Your task to perform on an android device: Go to calendar. Show me events next week Image 0: 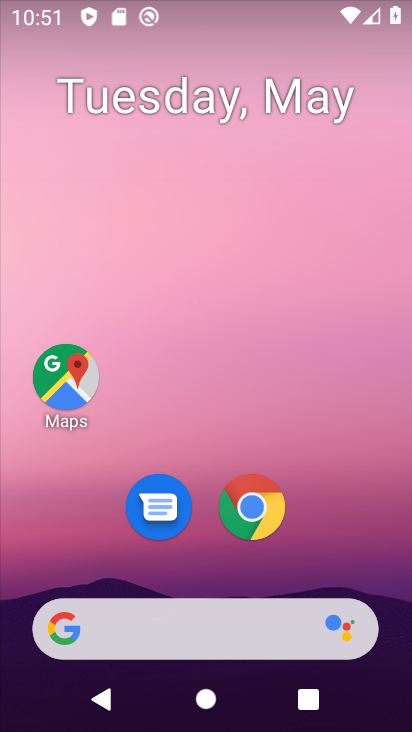
Step 0: drag from (263, 683) to (115, 195)
Your task to perform on an android device: Go to calendar. Show me events next week Image 1: 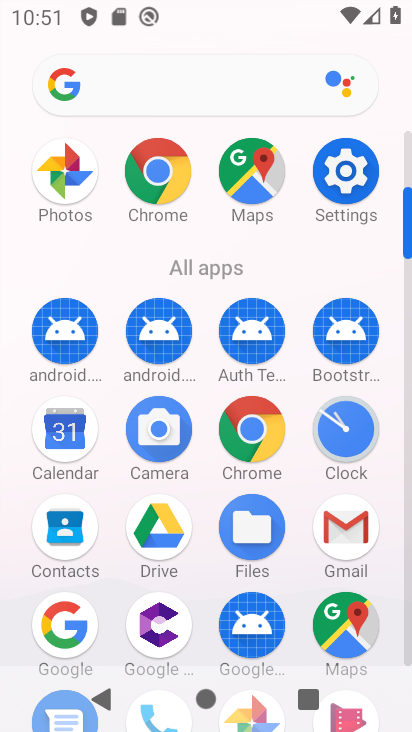
Step 1: click (63, 425)
Your task to perform on an android device: Go to calendar. Show me events next week Image 2: 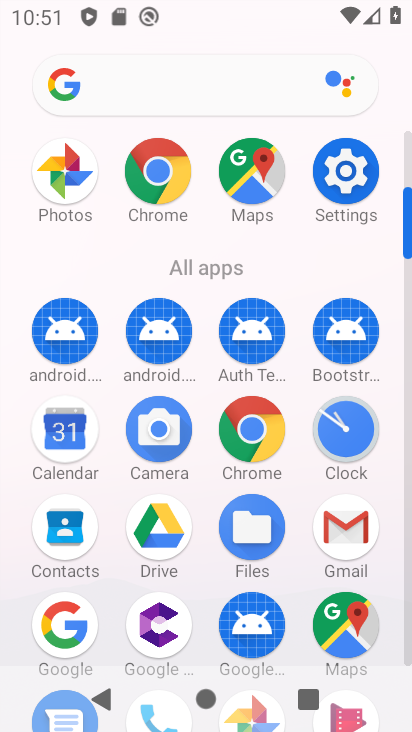
Step 2: click (63, 425)
Your task to perform on an android device: Go to calendar. Show me events next week Image 3: 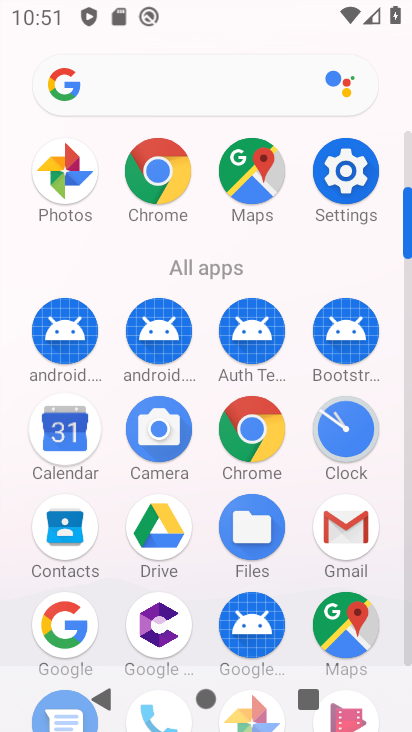
Step 3: click (63, 425)
Your task to perform on an android device: Go to calendar. Show me events next week Image 4: 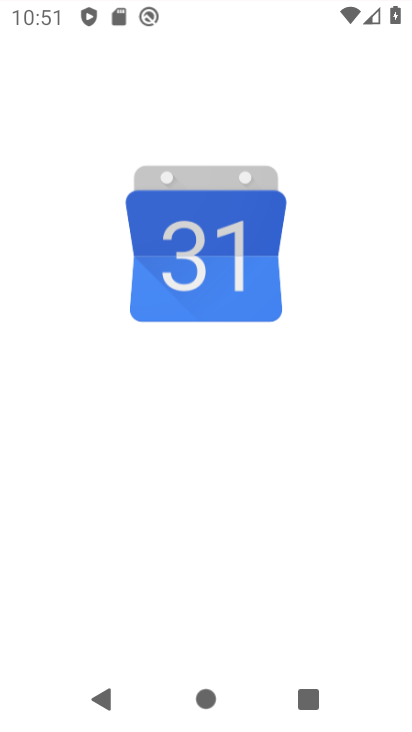
Step 4: click (63, 425)
Your task to perform on an android device: Go to calendar. Show me events next week Image 5: 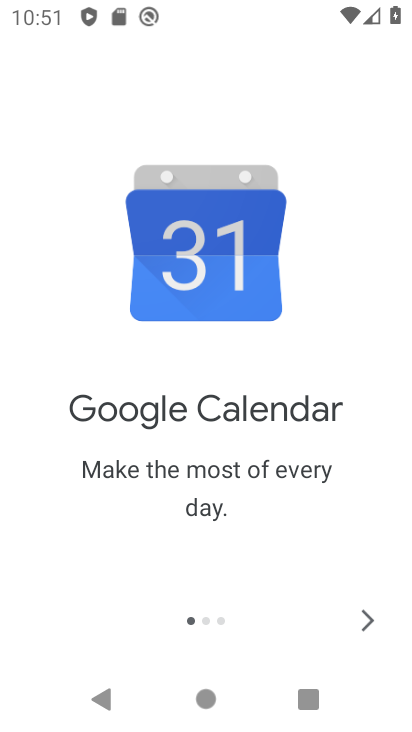
Step 5: click (363, 613)
Your task to perform on an android device: Go to calendar. Show me events next week Image 6: 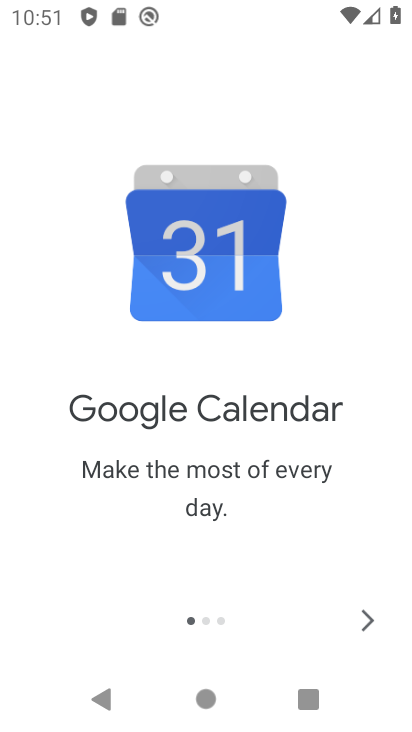
Step 6: click (365, 615)
Your task to perform on an android device: Go to calendar. Show me events next week Image 7: 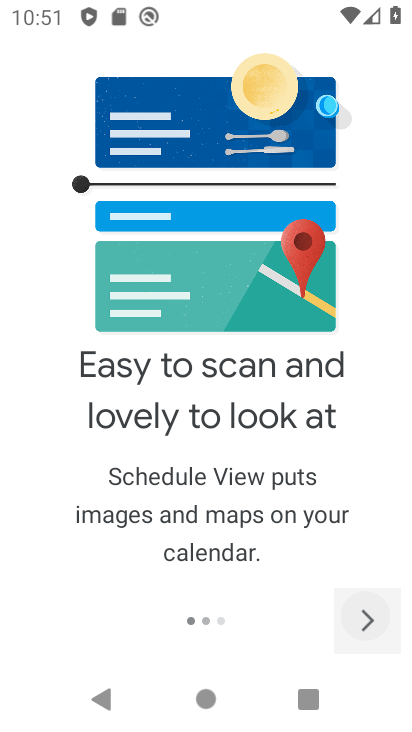
Step 7: click (366, 616)
Your task to perform on an android device: Go to calendar. Show me events next week Image 8: 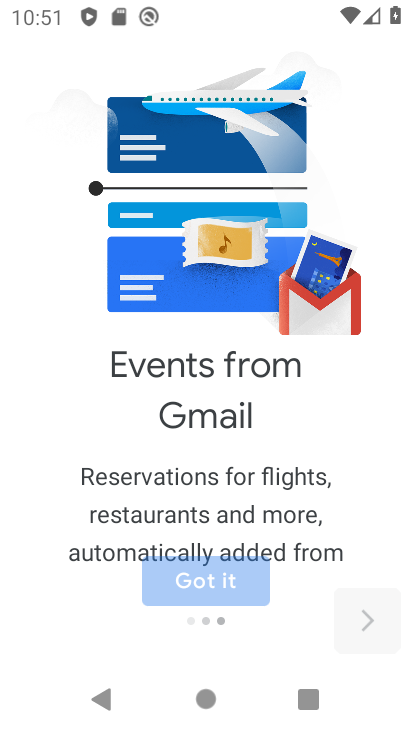
Step 8: click (370, 617)
Your task to perform on an android device: Go to calendar. Show me events next week Image 9: 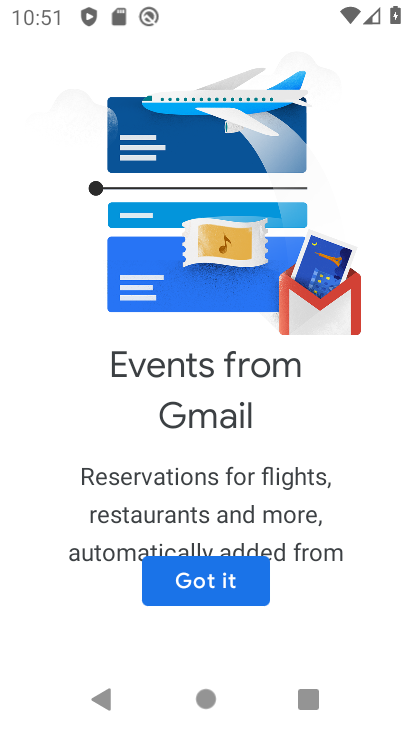
Step 9: click (234, 593)
Your task to perform on an android device: Go to calendar. Show me events next week Image 10: 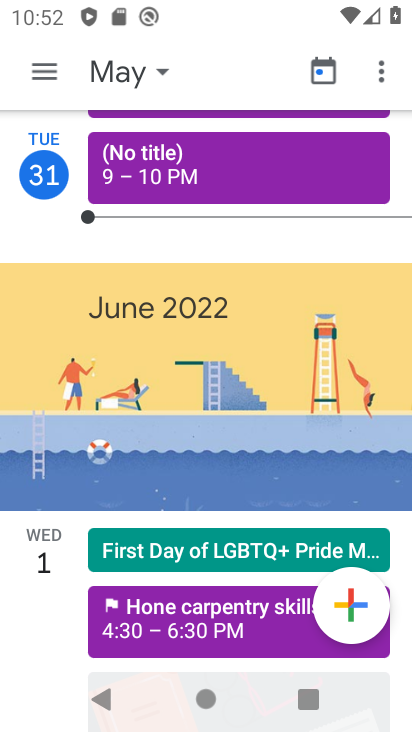
Step 10: click (158, 72)
Your task to perform on an android device: Go to calendar. Show me events next week Image 11: 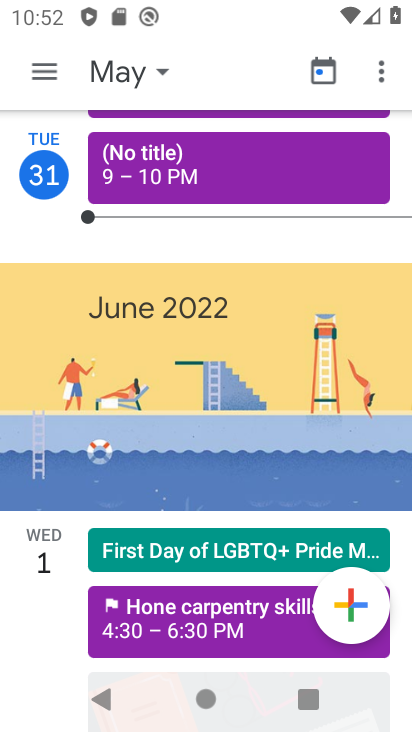
Step 11: click (162, 73)
Your task to perform on an android device: Go to calendar. Show me events next week Image 12: 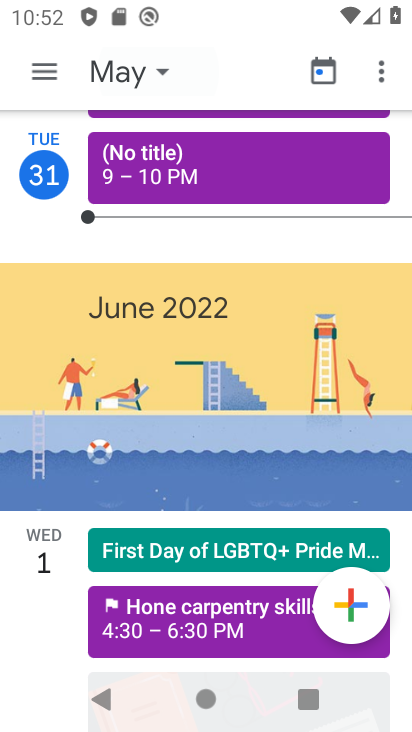
Step 12: click (164, 72)
Your task to perform on an android device: Go to calendar. Show me events next week Image 13: 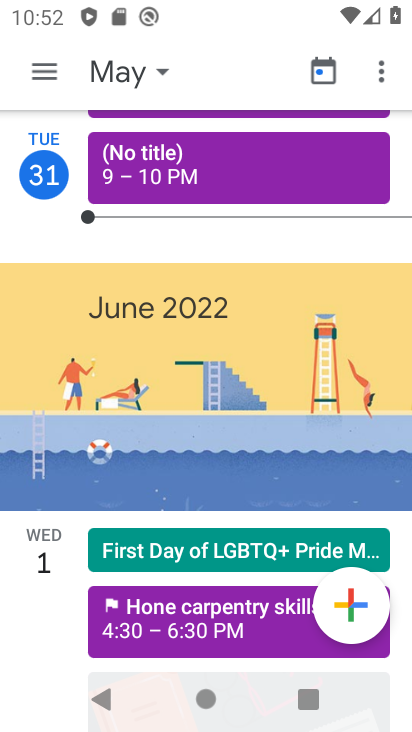
Step 13: click (164, 79)
Your task to perform on an android device: Go to calendar. Show me events next week Image 14: 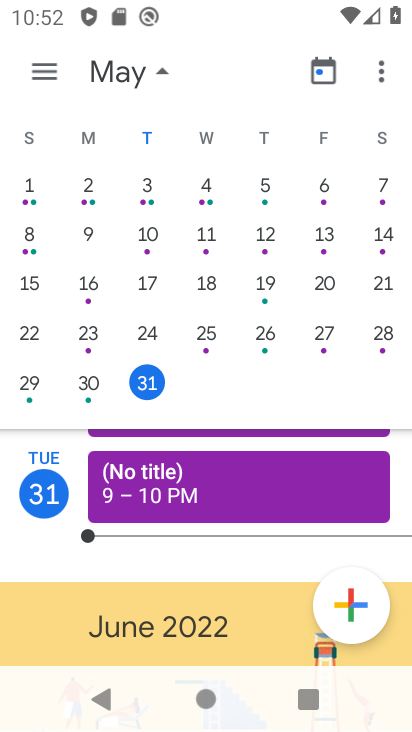
Step 14: drag from (250, 297) to (76, 333)
Your task to perform on an android device: Go to calendar. Show me events next week Image 15: 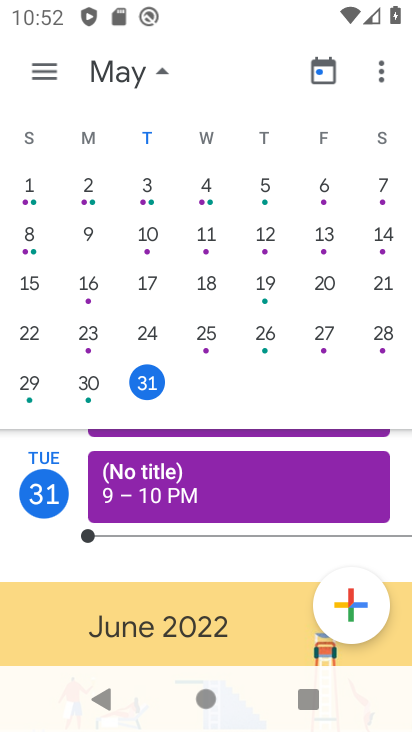
Step 15: click (55, 360)
Your task to perform on an android device: Go to calendar. Show me events next week Image 16: 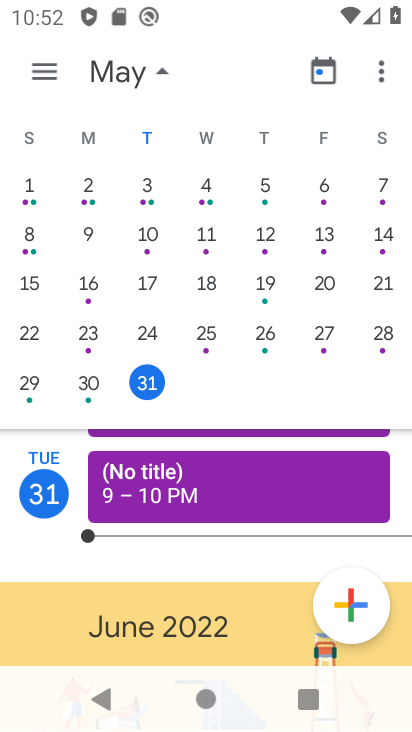
Step 16: drag from (267, 272) to (21, 313)
Your task to perform on an android device: Go to calendar. Show me events next week Image 17: 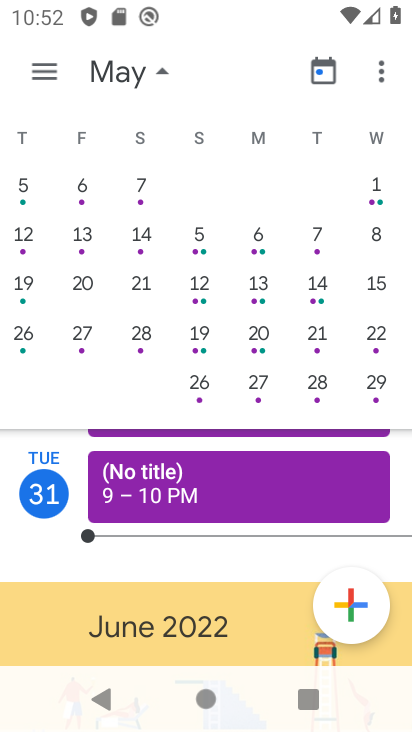
Step 17: drag from (197, 253) to (32, 281)
Your task to perform on an android device: Go to calendar. Show me events next week Image 18: 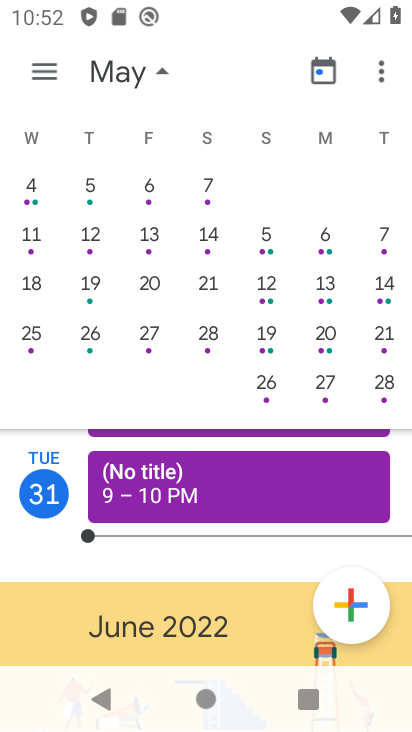
Step 18: drag from (140, 276) to (0, 353)
Your task to perform on an android device: Go to calendar. Show me events next week Image 19: 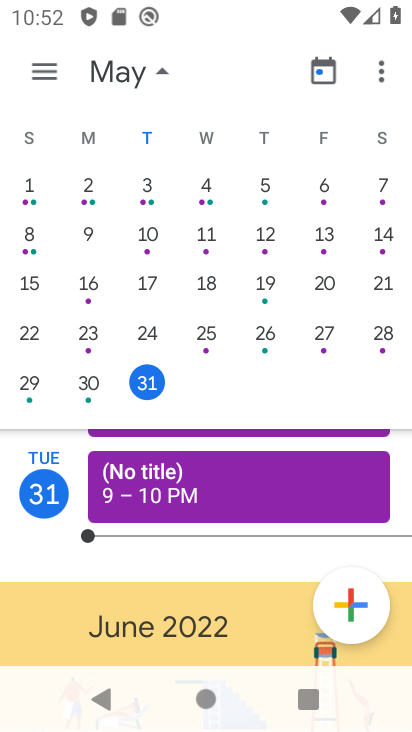
Step 19: drag from (283, 256) to (6, 436)
Your task to perform on an android device: Go to calendar. Show me events next week Image 20: 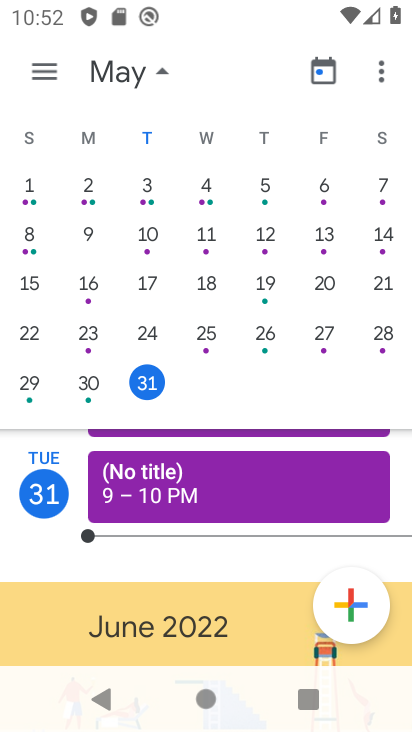
Step 20: drag from (274, 265) to (10, 322)
Your task to perform on an android device: Go to calendar. Show me events next week Image 21: 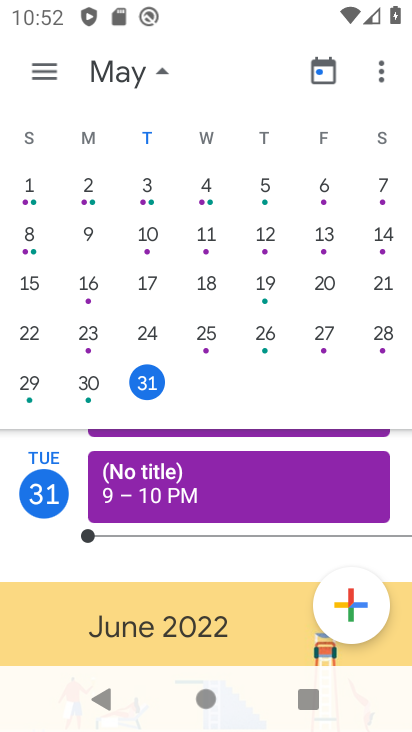
Step 21: drag from (52, 315) to (23, 345)
Your task to perform on an android device: Go to calendar. Show me events next week Image 22: 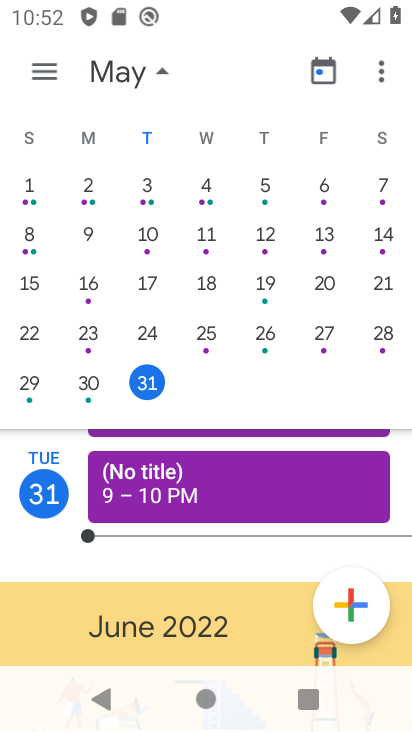
Step 22: drag from (193, 312) to (277, 282)
Your task to perform on an android device: Go to calendar. Show me events next week Image 23: 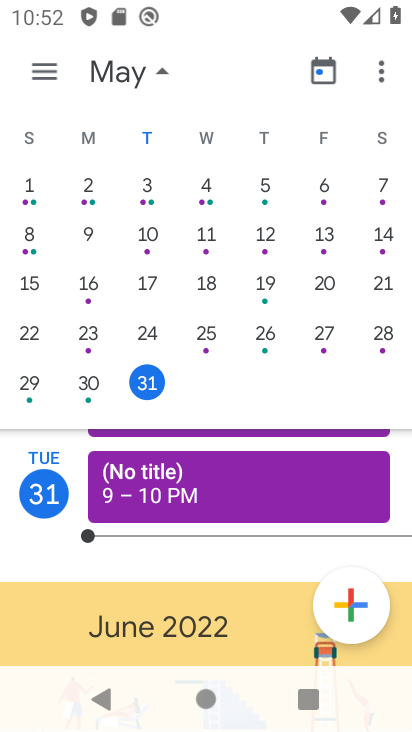
Step 23: drag from (319, 216) to (221, 298)
Your task to perform on an android device: Go to calendar. Show me events next week Image 24: 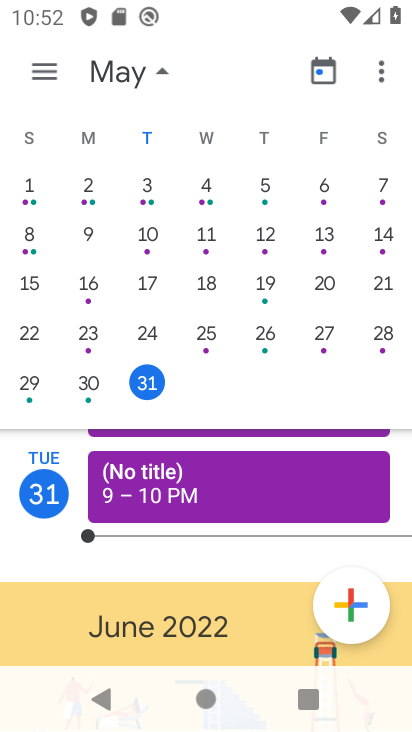
Step 24: drag from (281, 203) to (158, 297)
Your task to perform on an android device: Go to calendar. Show me events next week Image 25: 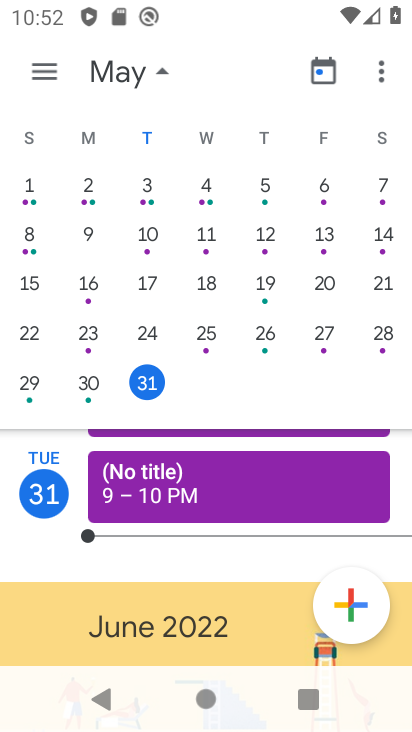
Step 25: drag from (216, 244) to (99, 343)
Your task to perform on an android device: Go to calendar. Show me events next week Image 26: 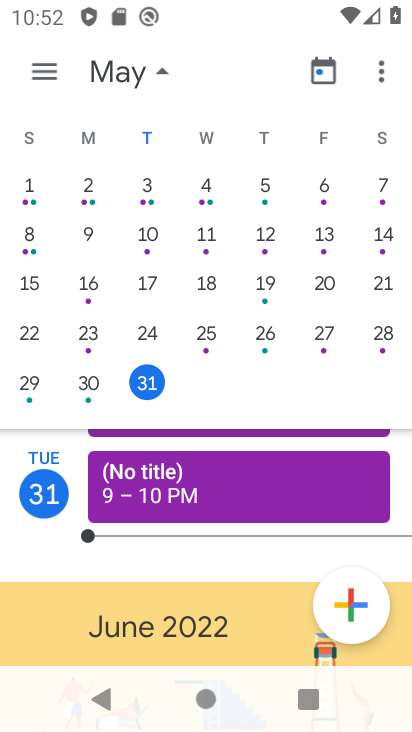
Step 26: drag from (327, 235) to (162, 335)
Your task to perform on an android device: Go to calendar. Show me events next week Image 27: 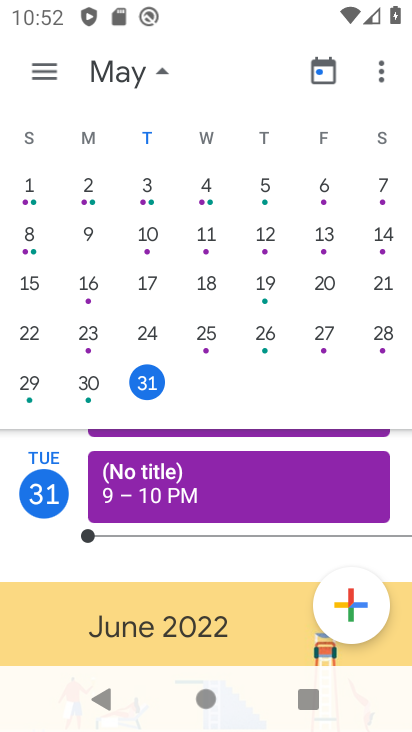
Step 27: drag from (300, 227) to (198, 277)
Your task to perform on an android device: Go to calendar. Show me events next week Image 28: 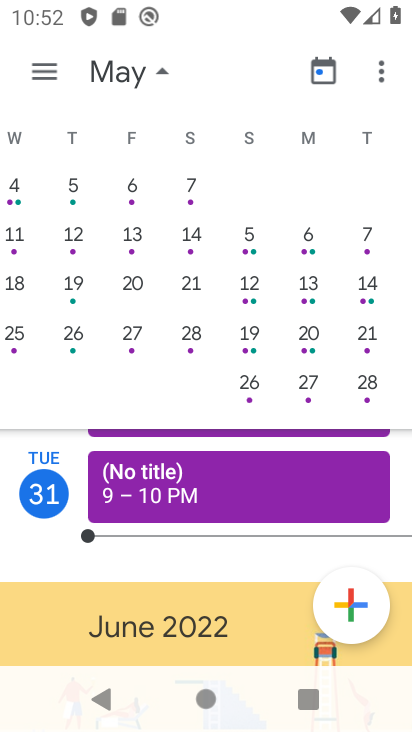
Step 28: drag from (269, 272) to (115, 278)
Your task to perform on an android device: Go to calendar. Show me events next week Image 29: 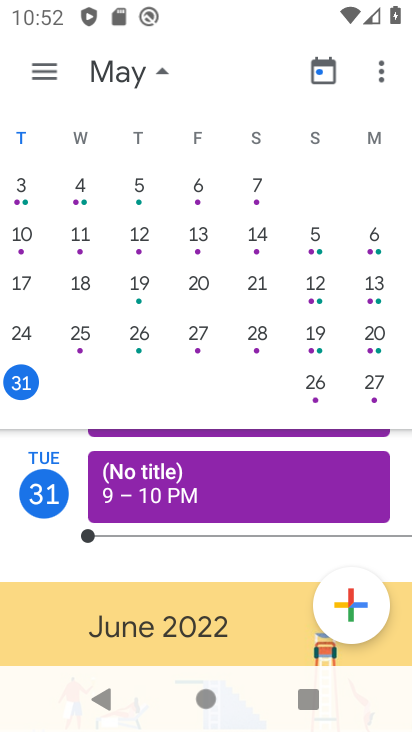
Step 29: drag from (239, 301) to (6, 197)
Your task to perform on an android device: Go to calendar. Show me events next week Image 30: 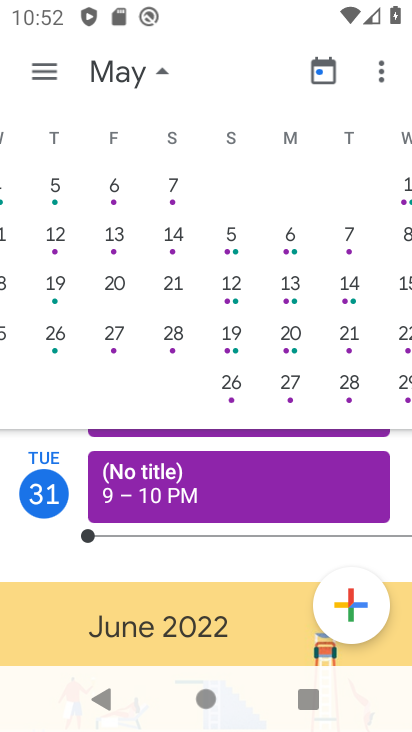
Step 30: drag from (245, 304) to (37, 169)
Your task to perform on an android device: Go to calendar. Show me events next week Image 31: 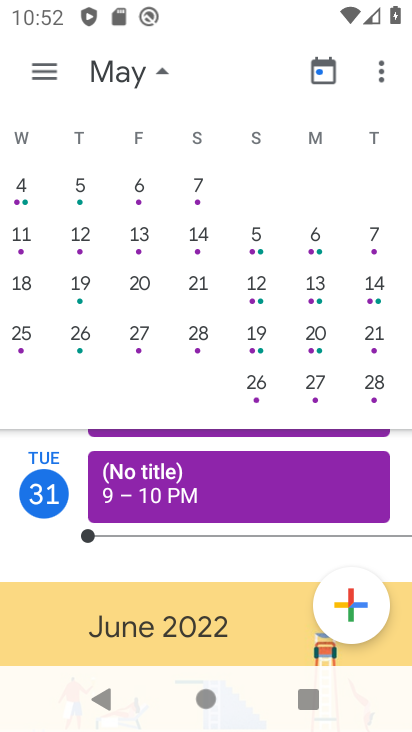
Step 31: drag from (285, 316) to (46, 291)
Your task to perform on an android device: Go to calendar. Show me events next week Image 32: 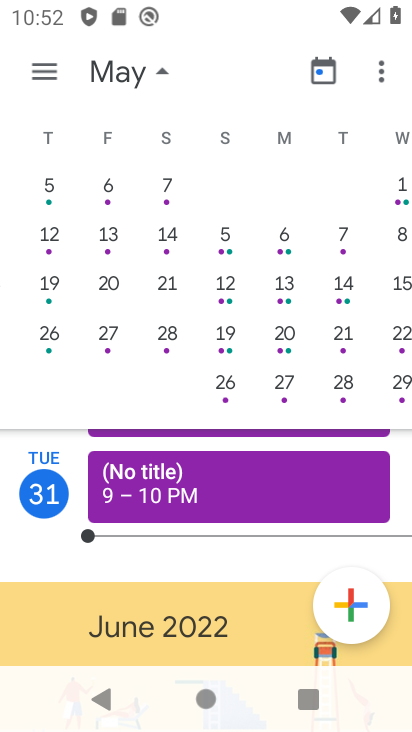
Step 32: drag from (314, 189) to (19, 234)
Your task to perform on an android device: Go to calendar. Show me events next week Image 33: 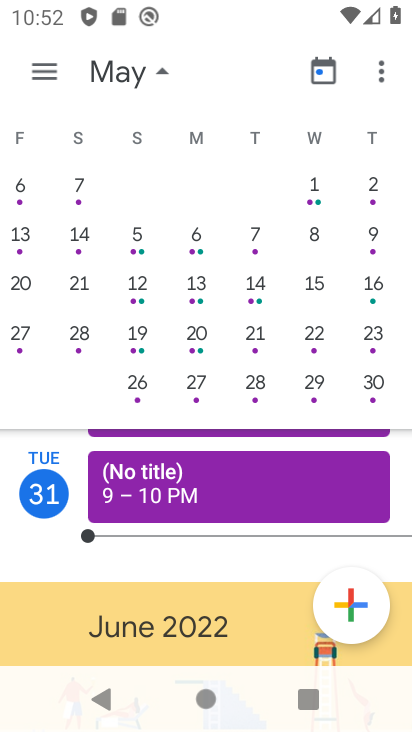
Step 33: drag from (182, 205) to (27, 238)
Your task to perform on an android device: Go to calendar. Show me events next week Image 34: 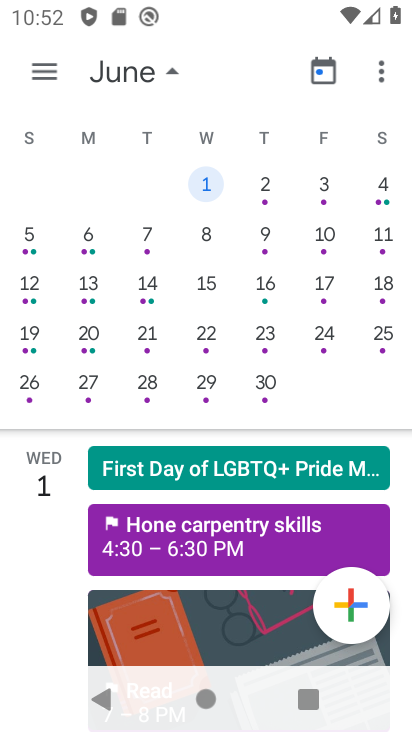
Step 34: drag from (209, 206) to (57, 301)
Your task to perform on an android device: Go to calendar. Show me events next week Image 35: 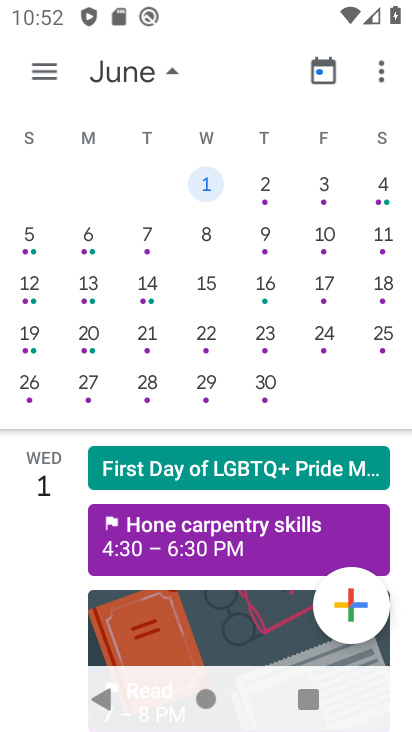
Step 35: click (204, 225)
Your task to perform on an android device: Go to calendar. Show me events next week Image 36: 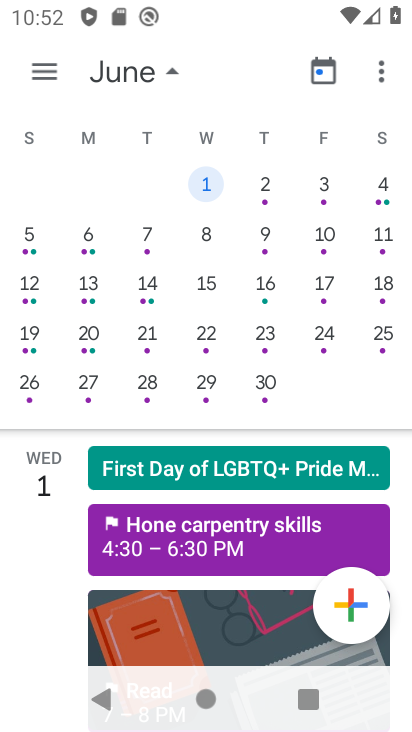
Step 36: click (204, 226)
Your task to perform on an android device: Go to calendar. Show me events next week Image 37: 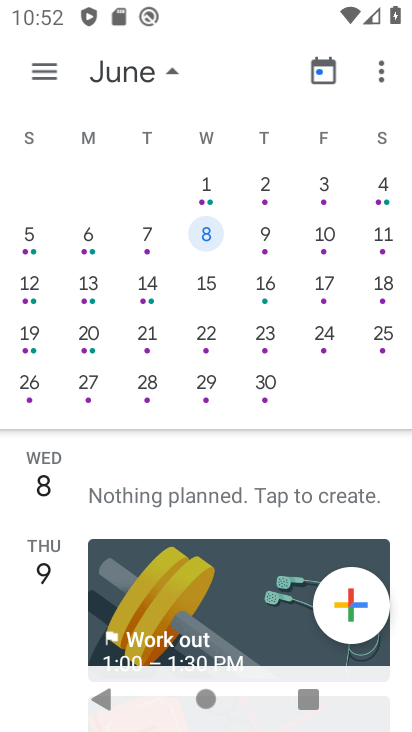
Step 37: click (204, 236)
Your task to perform on an android device: Go to calendar. Show me events next week Image 38: 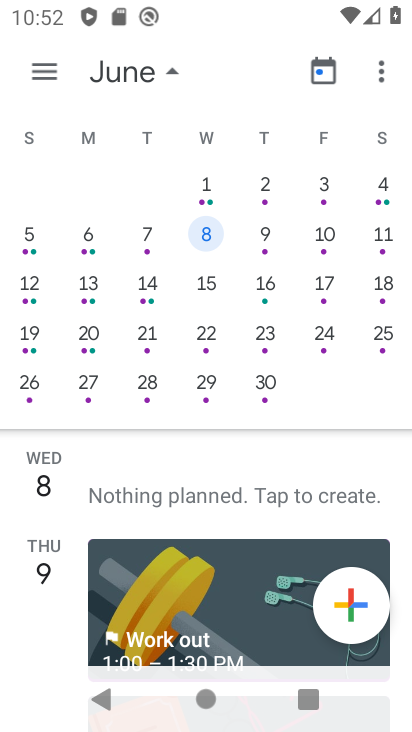
Step 38: task complete